Your task to perform on an android device: Go to Reddit.com Image 0: 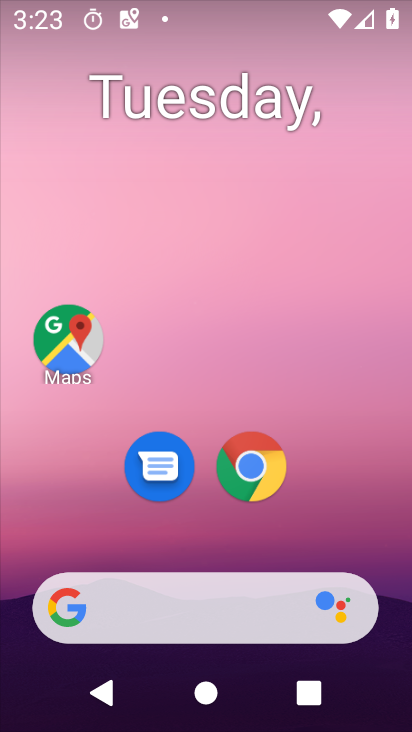
Step 0: drag from (343, 525) to (348, 198)
Your task to perform on an android device: Go to Reddit.com Image 1: 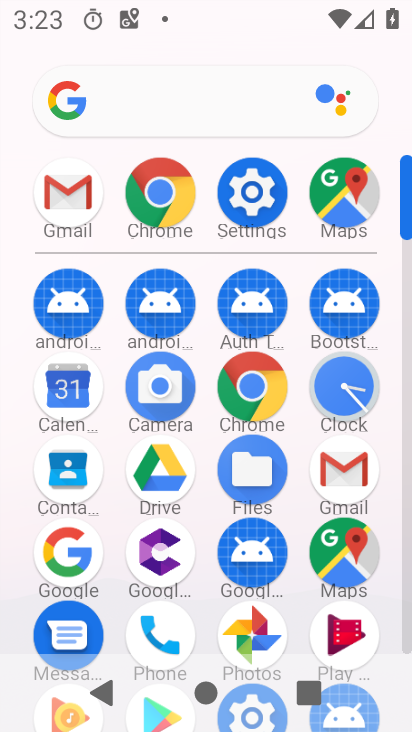
Step 1: click (261, 392)
Your task to perform on an android device: Go to Reddit.com Image 2: 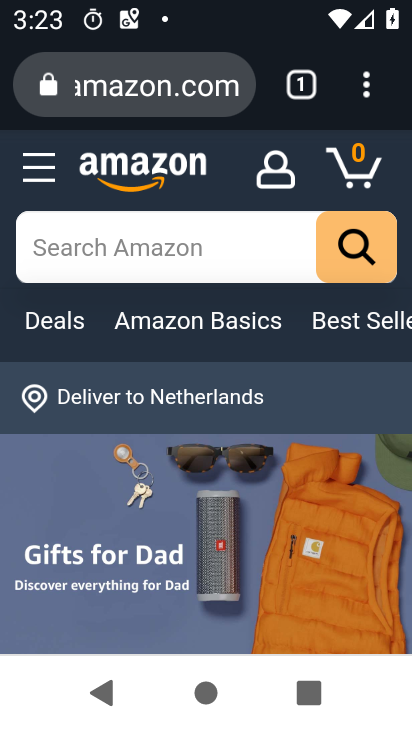
Step 2: click (199, 109)
Your task to perform on an android device: Go to Reddit.com Image 3: 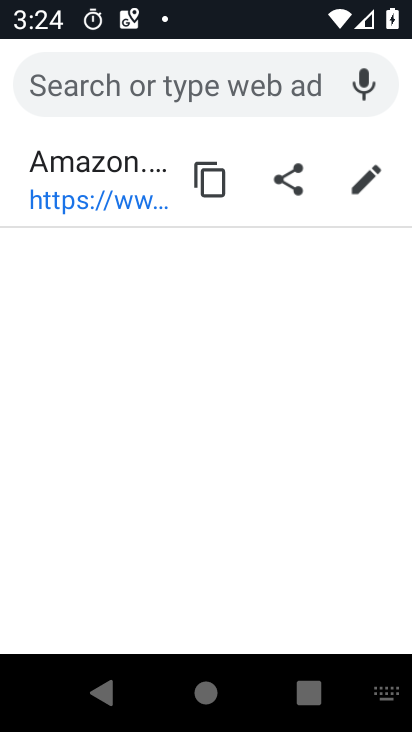
Step 3: type "reddit.com"
Your task to perform on an android device: Go to Reddit.com Image 4: 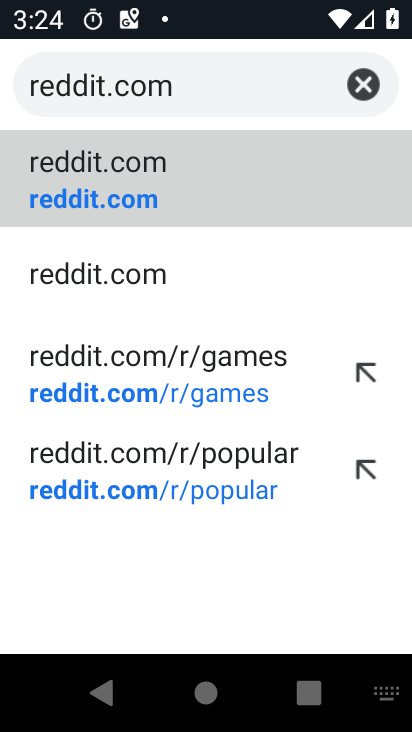
Step 4: click (218, 186)
Your task to perform on an android device: Go to Reddit.com Image 5: 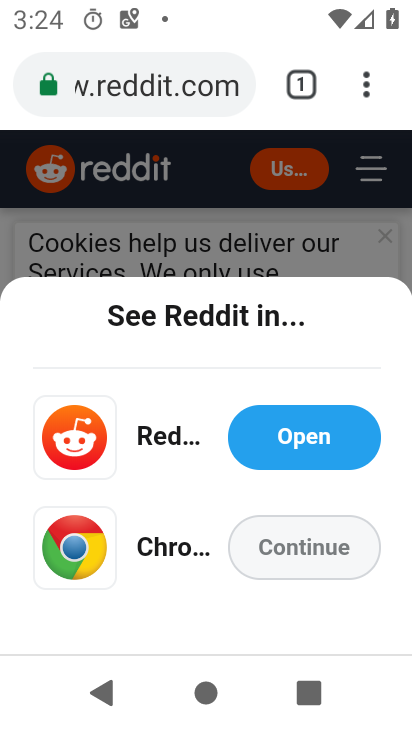
Step 5: task complete